Your task to perform on an android device: Open Google Chrome Image 0: 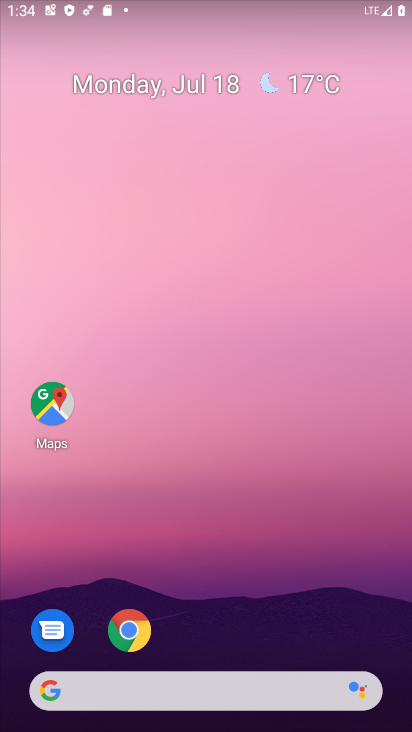
Step 0: click (124, 628)
Your task to perform on an android device: Open Google Chrome Image 1: 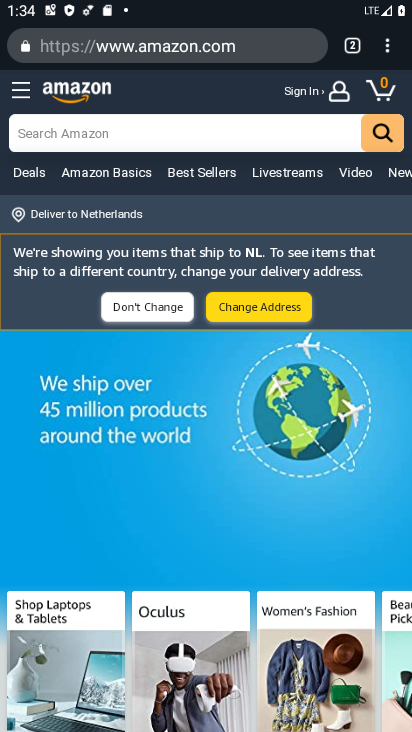
Step 1: press back button
Your task to perform on an android device: Open Google Chrome Image 2: 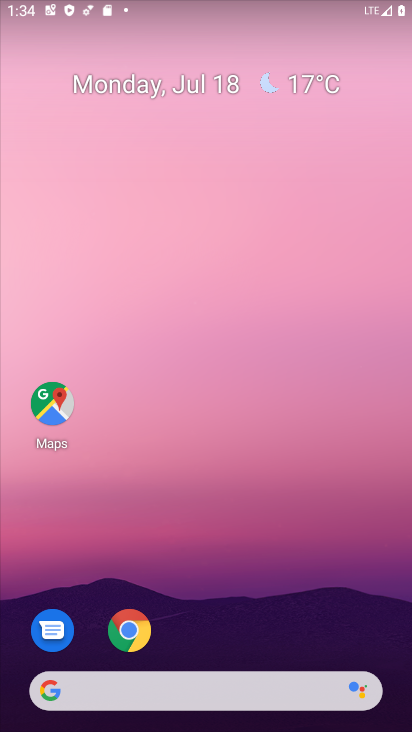
Step 2: click (138, 626)
Your task to perform on an android device: Open Google Chrome Image 3: 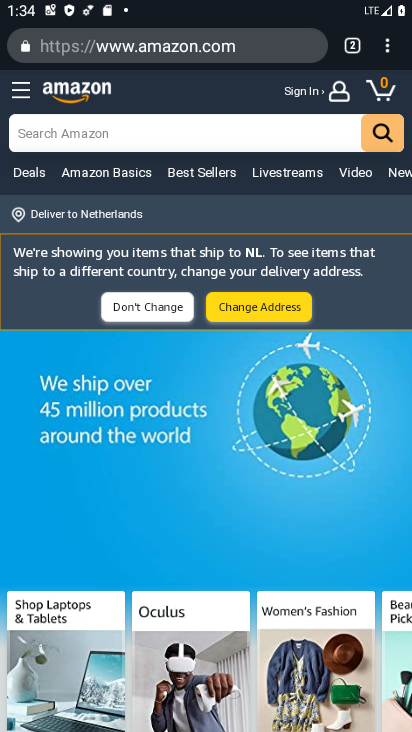
Step 3: click (392, 57)
Your task to perform on an android device: Open Google Chrome Image 4: 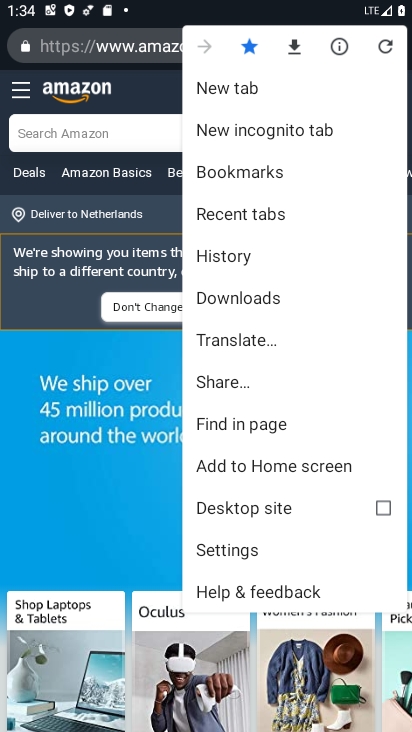
Step 4: click (315, 81)
Your task to perform on an android device: Open Google Chrome Image 5: 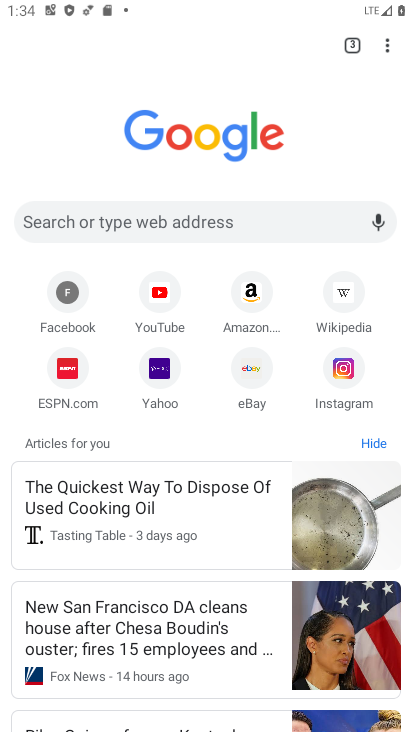
Step 5: task complete